Your task to perform on an android device: change the clock style Image 0: 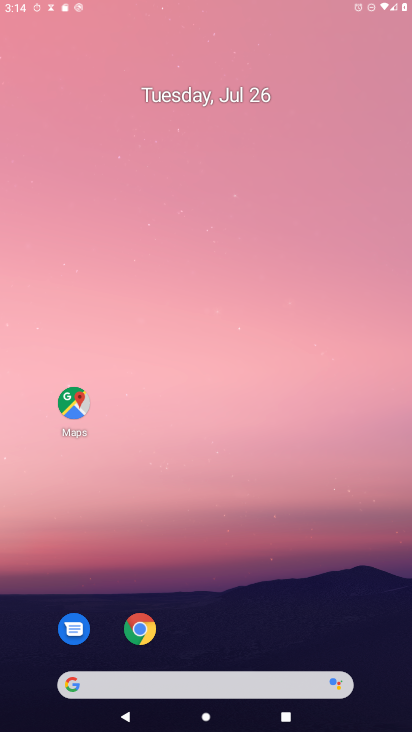
Step 0: press home button
Your task to perform on an android device: change the clock style Image 1: 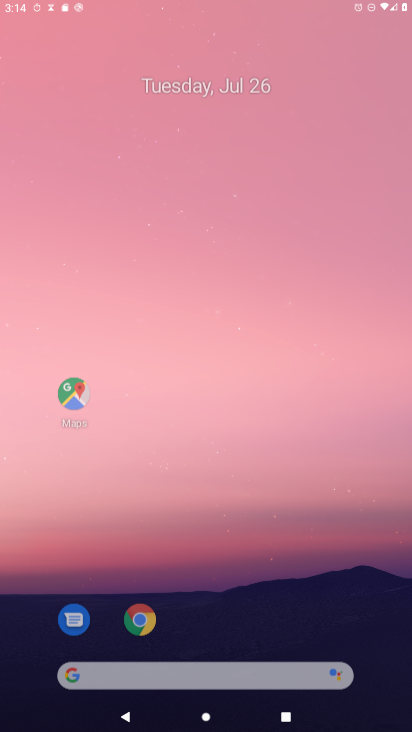
Step 1: drag from (353, 621) to (410, 711)
Your task to perform on an android device: change the clock style Image 2: 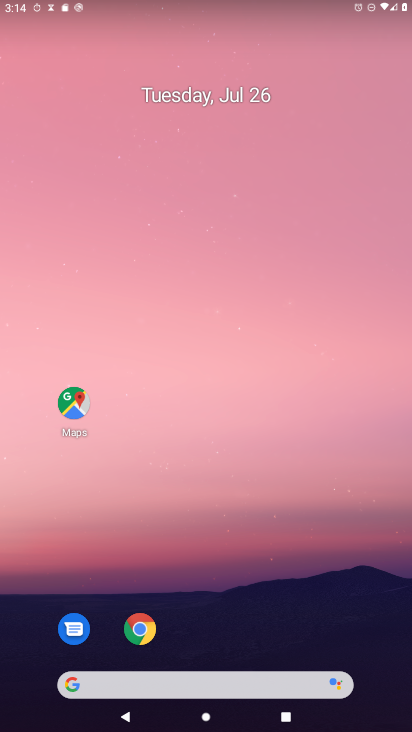
Step 2: drag from (119, 692) to (121, 156)
Your task to perform on an android device: change the clock style Image 3: 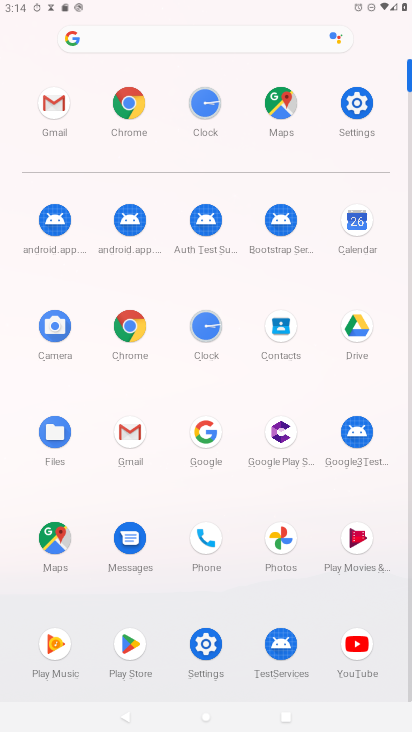
Step 3: click (214, 332)
Your task to perform on an android device: change the clock style Image 4: 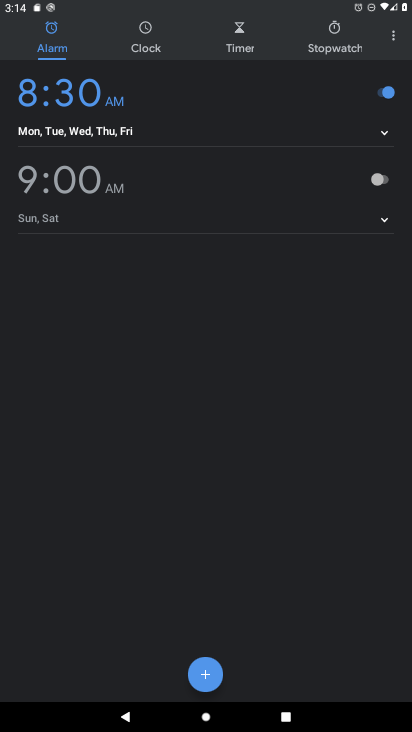
Step 4: click (392, 37)
Your task to perform on an android device: change the clock style Image 5: 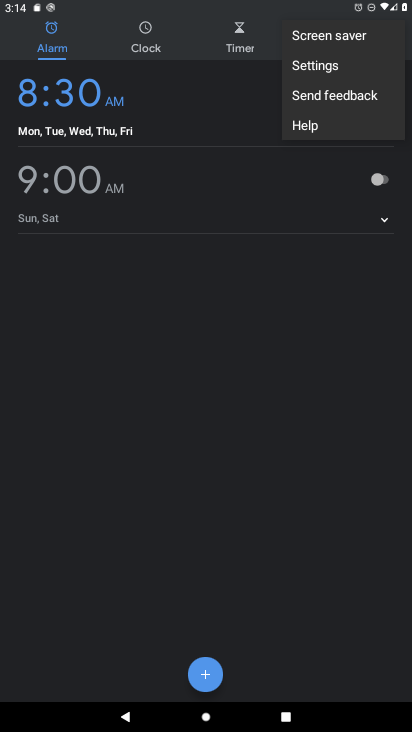
Step 5: click (186, 372)
Your task to perform on an android device: change the clock style Image 6: 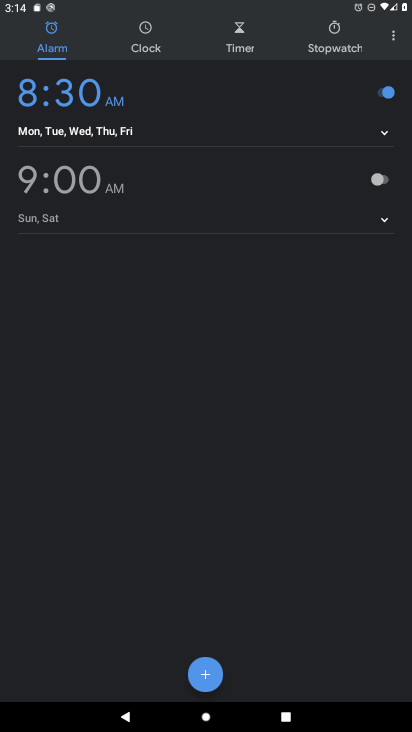
Step 6: click (391, 36)
Your task to perform on an android device: change the clock style Image 7: 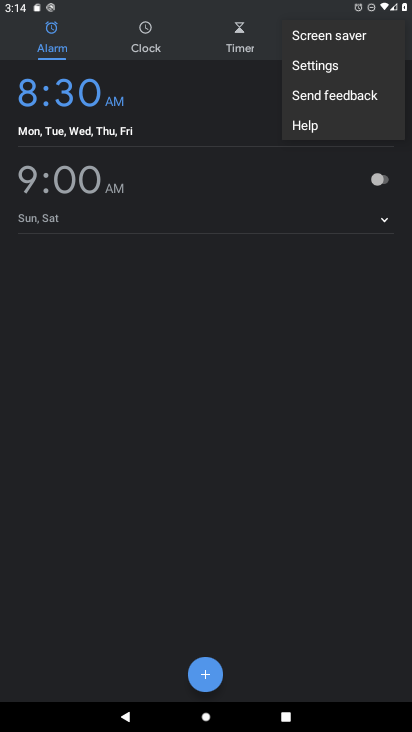
Step 7: click (321, 70)
Your task to perform on an android device: change the clock style Image 8: 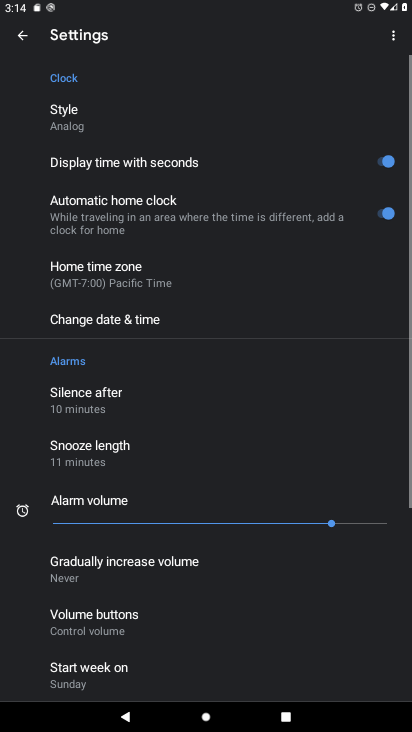
Step 8: click (103, 115)
Your task to perform on an android device: change the clock style Image 9: 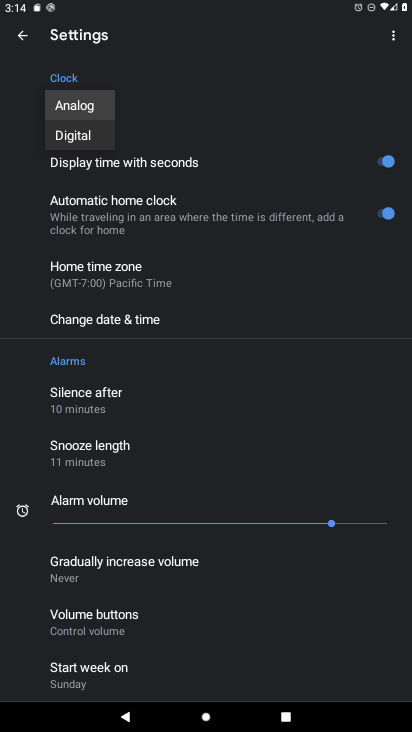
Step 9: click (93, 136)
Your task to perform on an android device: change the clock style Image 10: 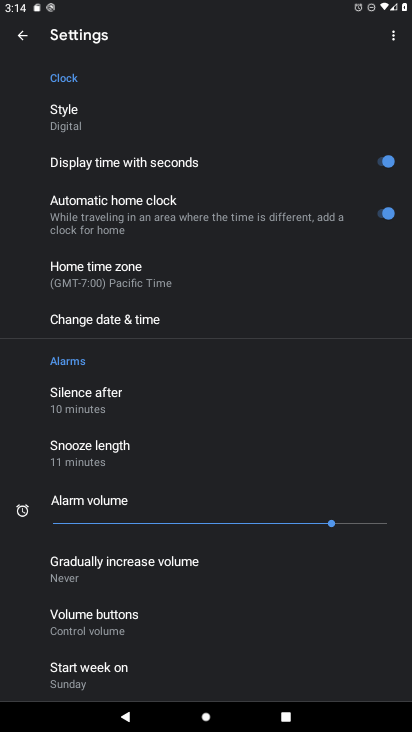
Step 10: task complete